Your task to perform on an android device: Show me the alarms in the clock app Image 0: 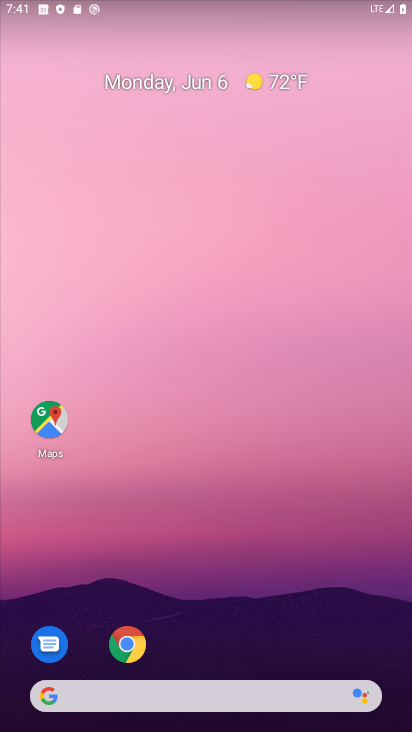
Step 0: drag from (274, 714) to (130, 270)
Your task to perform on an android device: Show me the alarms in the clock app Image 1: 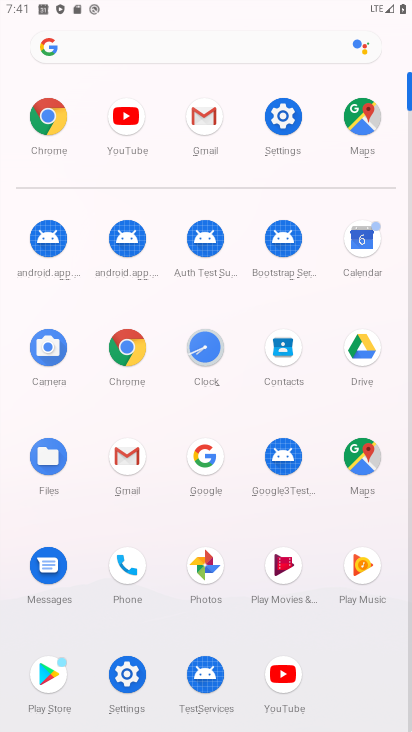
Step 1: click (204, 335)
Your task to perform on an android device: Show me the alarms in the clock app Image 2: 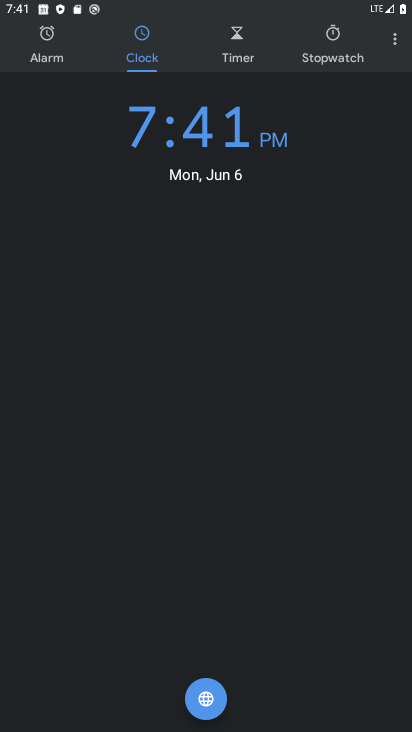
Step 2: click (44, 68)
Your task to perform on an android device: Show me the alarms in the clock app Image 3: 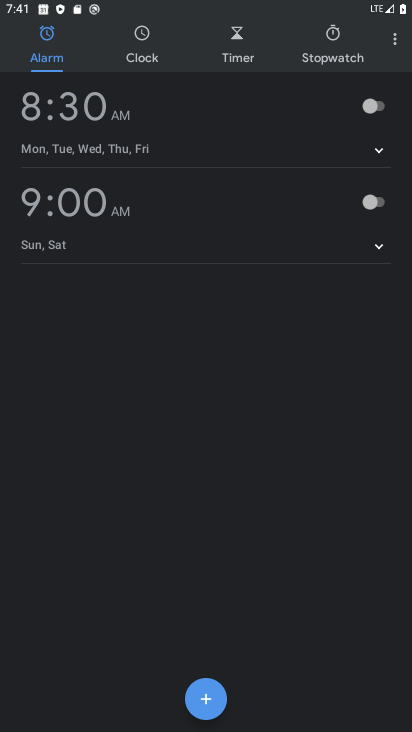
Step 3: task complete